Your task to perform on an android device: open a bookmark in the chrome app Image 0: 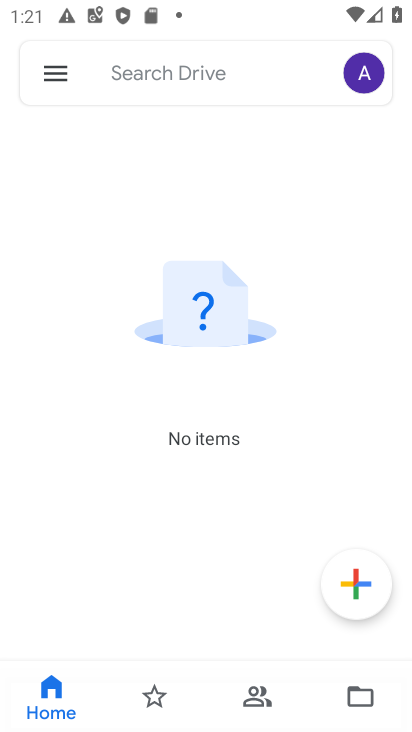
Step 0: press home button
Your task to perform on an android device: open a bookmark in the chrome app Image 1: 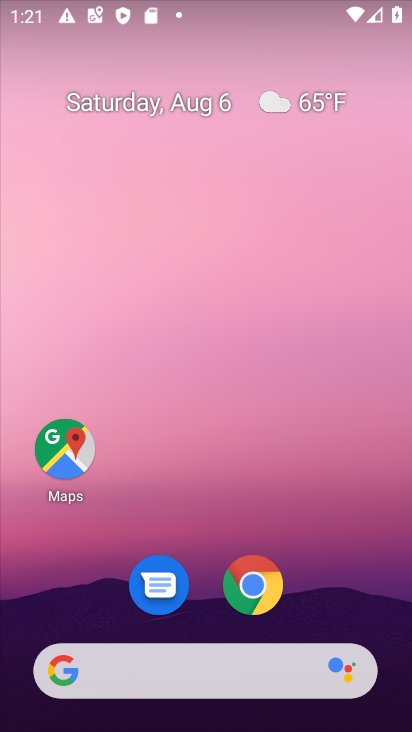
Step 1: click (257, 581)
Your task to perform on an android device: open a bookmark in the chrome app Image 2: 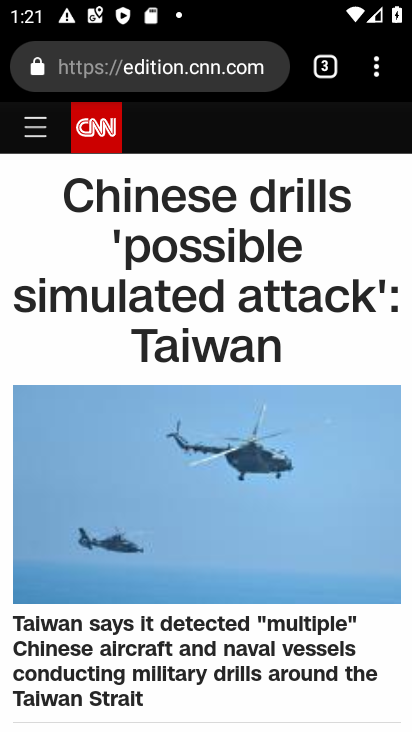
Step 2: click (376, 70)
Your task to perform on an android device: open a bookmark in the chrome app Image 3: 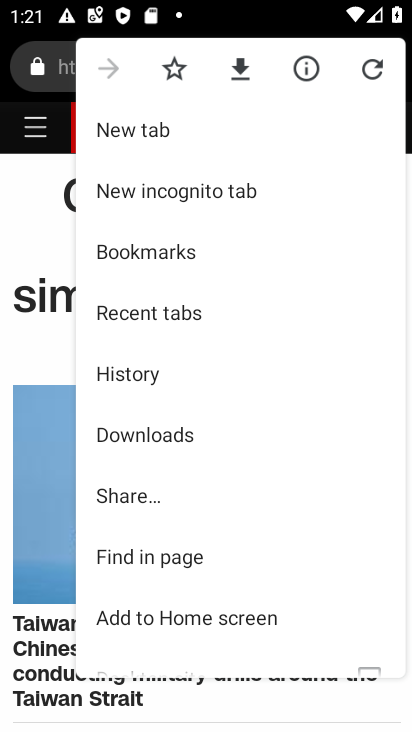
Step 3: click (202, 251)
Your task to perform on an android device: open a bookmark in the chrome app Image 4: 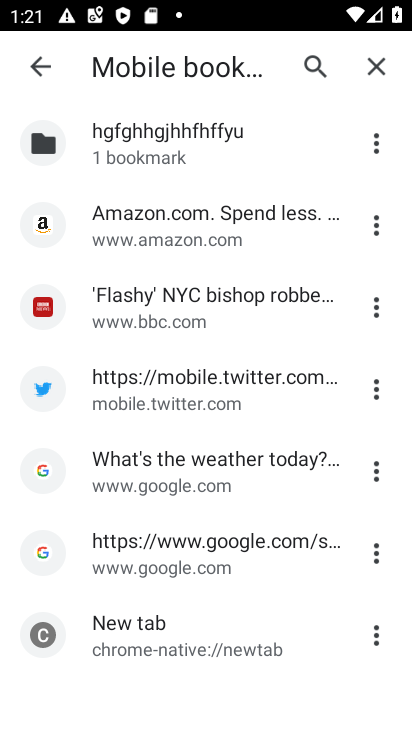
Step 4: click (196, 384)
Your task to perform on an android device: open a bookmark in the chrome app Image 5: 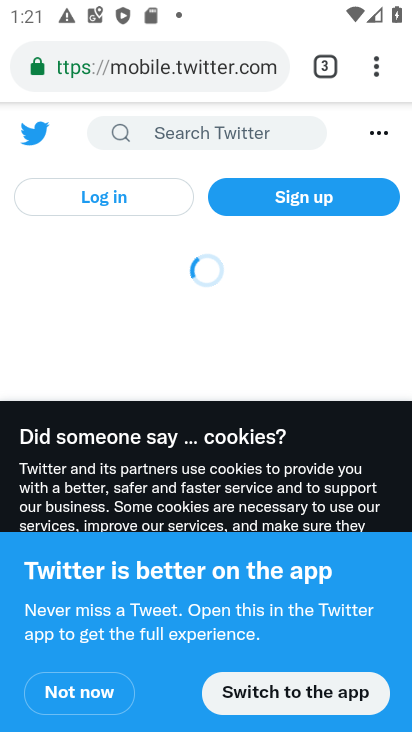
Step 5: task complete